Your task to perform on an android device: Open location settings Image 0: 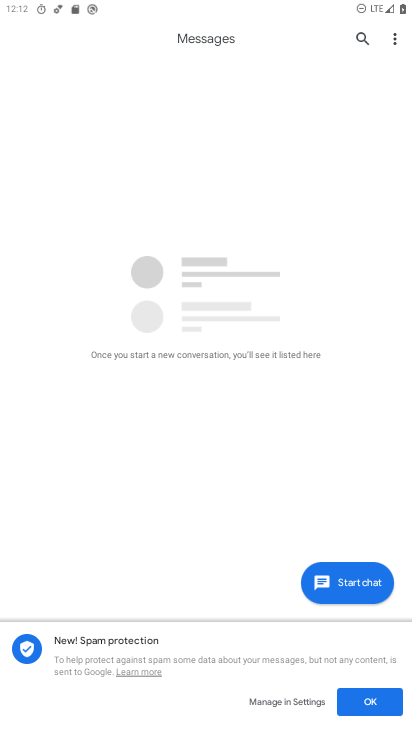
Step 0: press home button
Your task to perform on an android device: Open location settings Image 1: 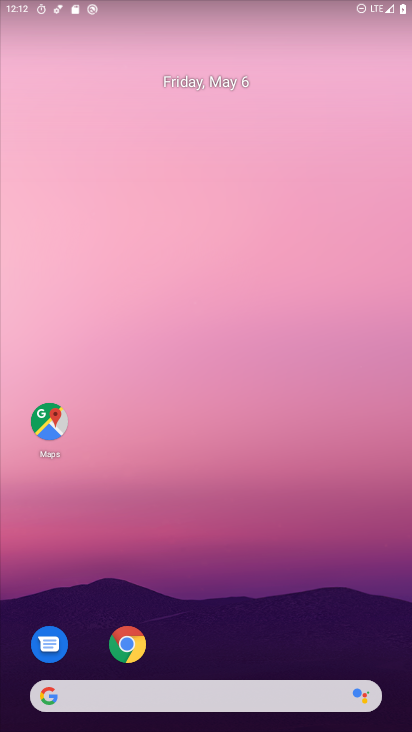
Step 1: drag from (354, 636) to (392, 122)
Your task to perform on an android device: Open location settings Image 2: 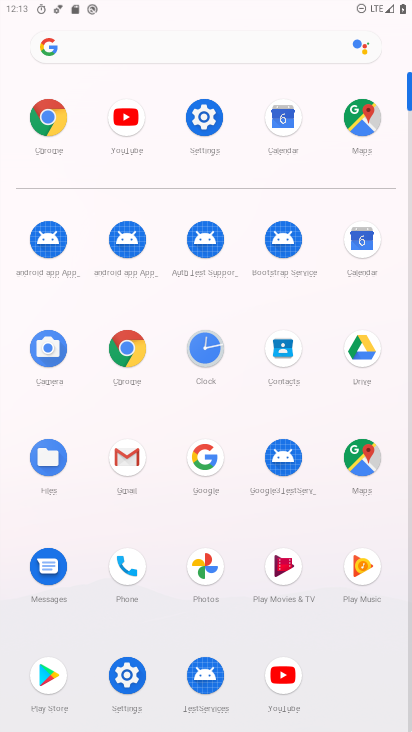
Step 2: click (128, 680)
Your task to perform on an android device: Open location settings Image 3: 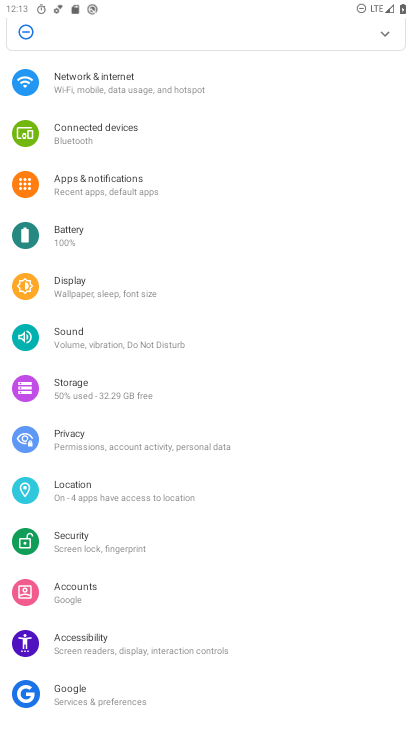
Step 3: click (51, 480)
Your task to perform on an android device: Open location settings Image 4: 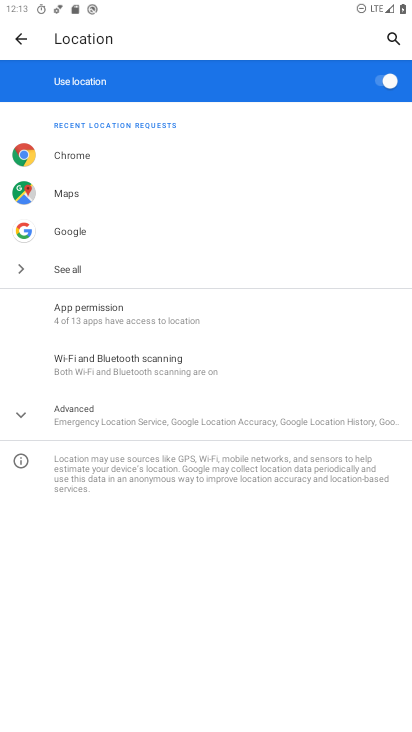
Step 4: click (180, 425)
Your task to perform on an android device: Open location settings Image 5: 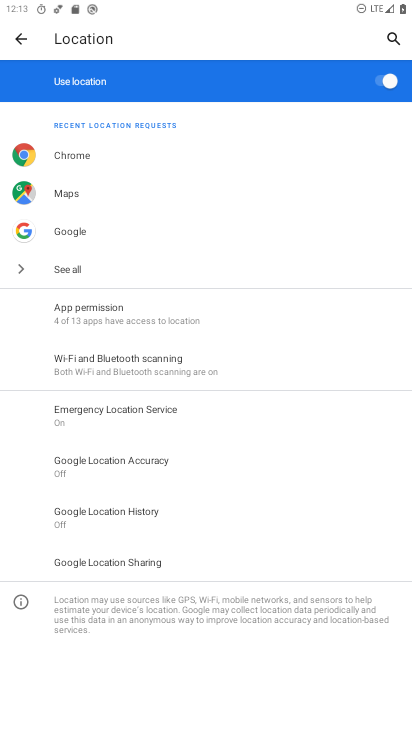
Step 5: task complete